Your task to perform on an android device: star an email in the gmail app Image 0: 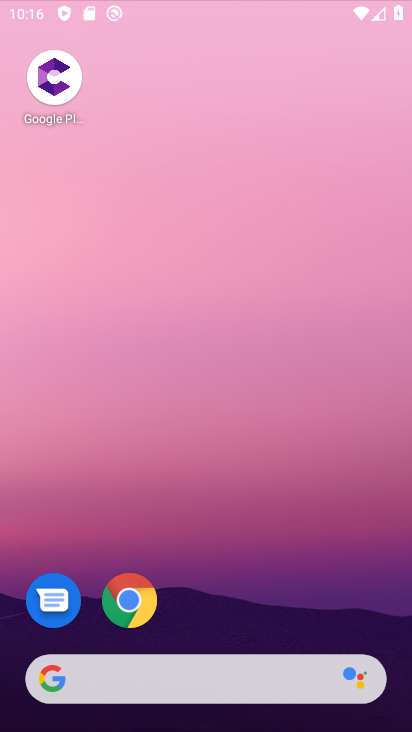
Step 0: drag from (390, 609) to (384, 296)
Your task to perform on an android device: star an email in the gmail app Image 1: 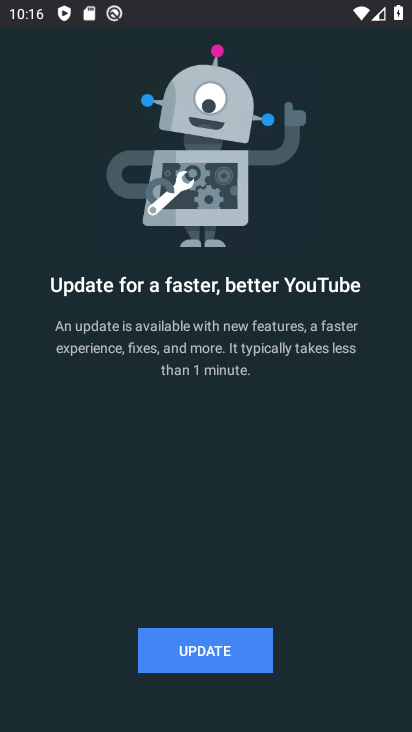
Step 1: press home button
Your task to perform on an android device: star an email in the gmail app Image 2: 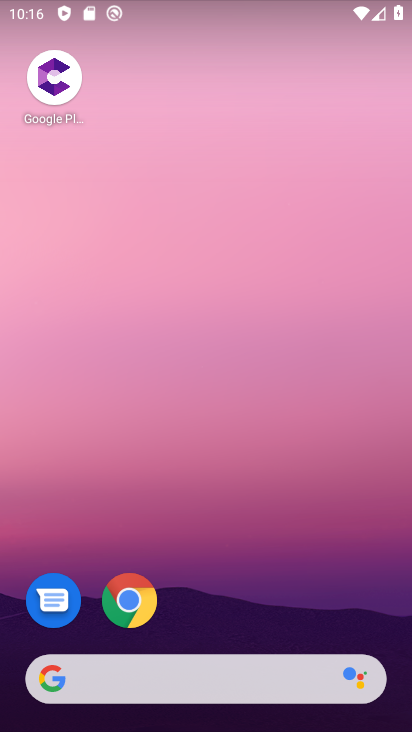
Step 2: drag from (369, 592) to (361, 217)
Your task to perform on an android device: star an email in the gmail app Image 3: 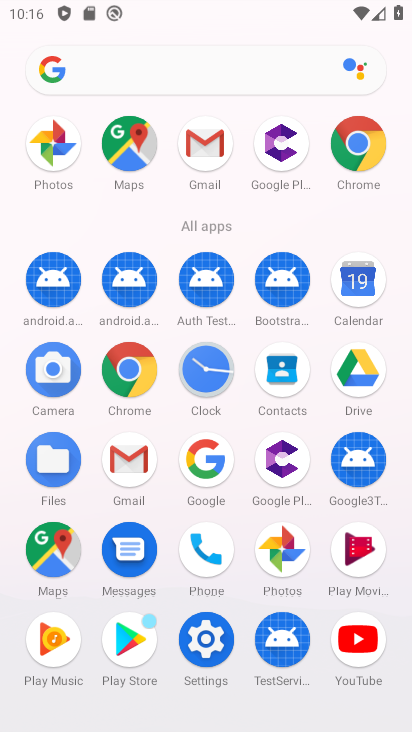
Step 3: click (132, 464)
Your task to perform on an android device: star an email in the gmail app Image 4: 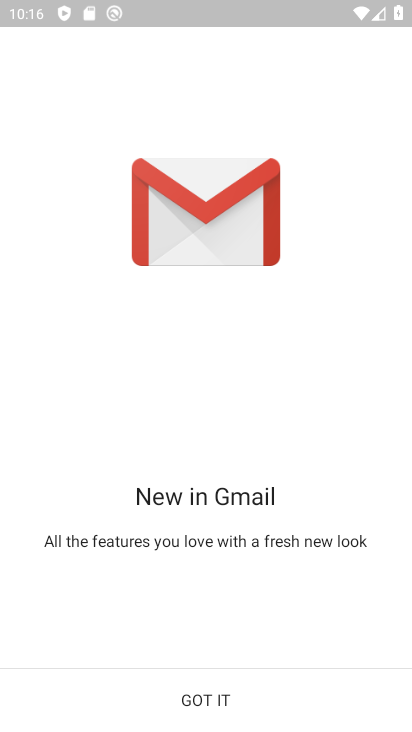
Step 4: click (321, 699)
Your task to perform on an android device: star an email in the gmail app Image 5: 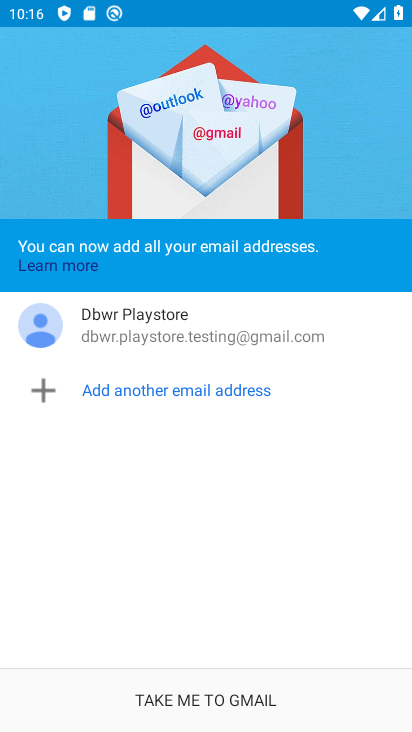
Step 5: click (281, 712)
Your task to perform on an android device: star an email in the gmail app Image 6: 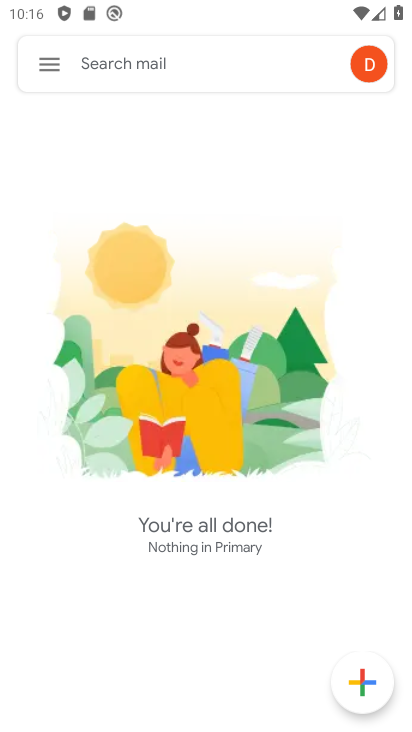
Step 6: click (52, 65)
Your task to perform on an android device: star an email in the gmail app Image 7: 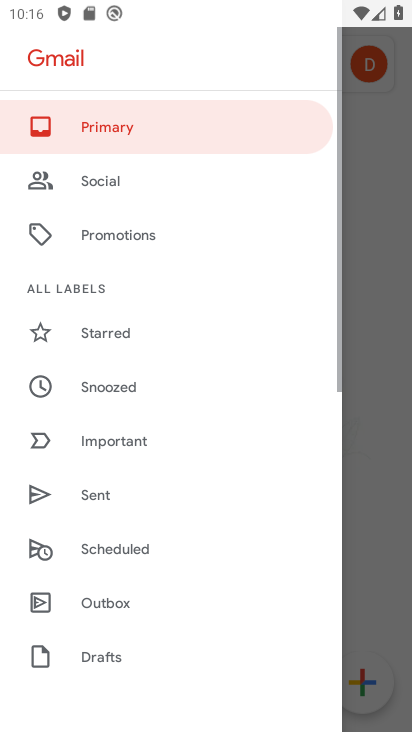
Step 7: drag from (229, 550) to (231, 398)
Your task to perform on an android device: star an email in the gmail app Image 8: 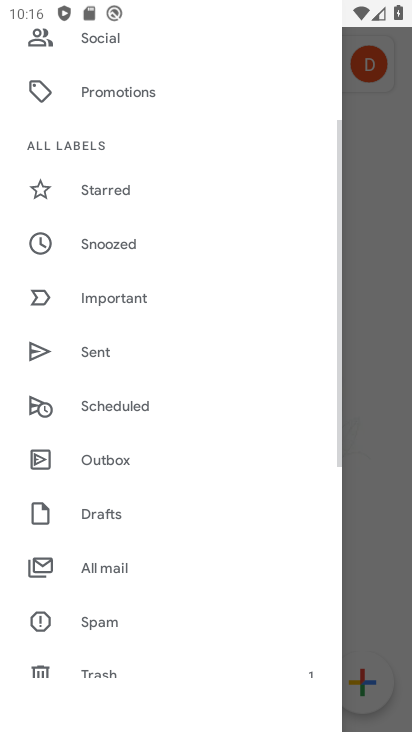
Step 8: drag from (243, 592) to (249, 455)
Your task to perform on an android device: star an email in the gmail app Image 9: 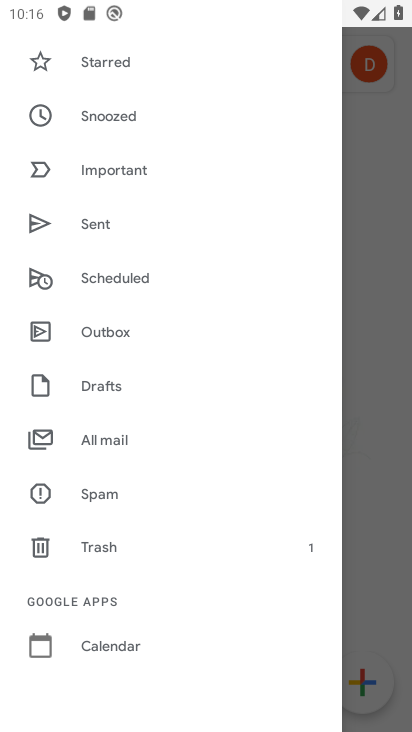
Step 9: drag from (242, 597) to (238, 472)
Your task to perform on an android device: star an email in the gmail app Image 10: 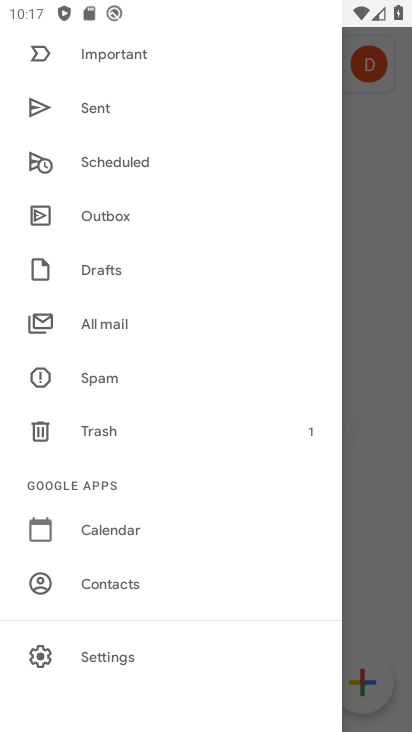
Step 10: drag from (242, 580) to (245, 416)
Your task to perform on an android device: star an email in the gmail app Image 11: 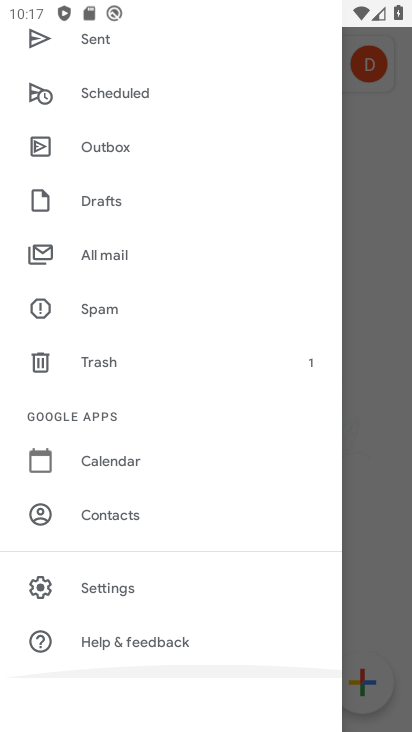
Step 11: drag from (245, 305) to (261, 517)
Your task to perform on an android device: star an email in the gmail app Image 12: 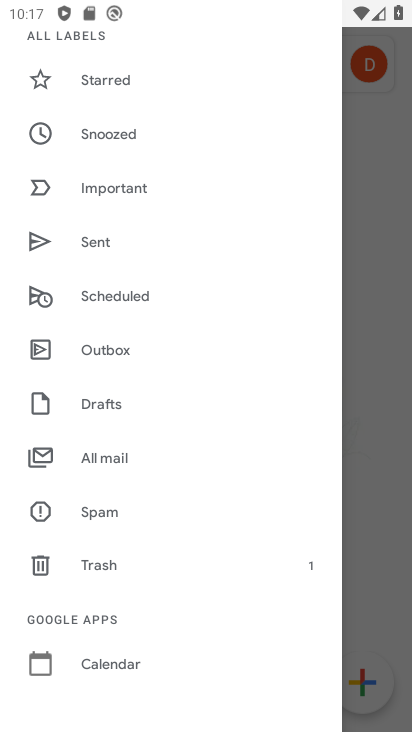
Step 12: drag from (241, 237) to (254, 397)
Your task to perform on an android device: star an email in the gmail app Image 13: 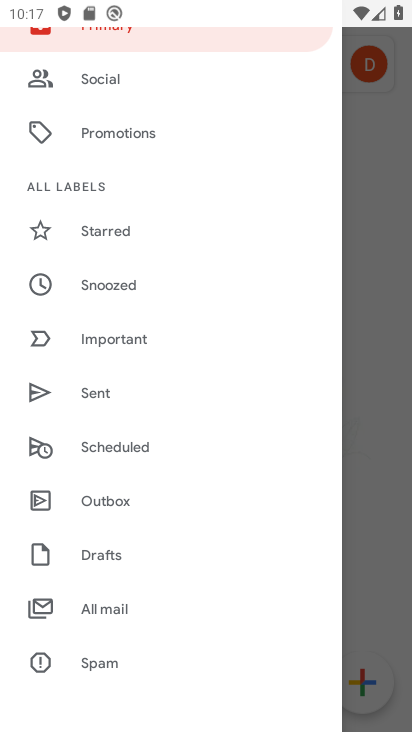
Step 13: drag from (231, 247) to (241, 432)
Your task to perform on an android device: star an email in the gmail app Image 14: 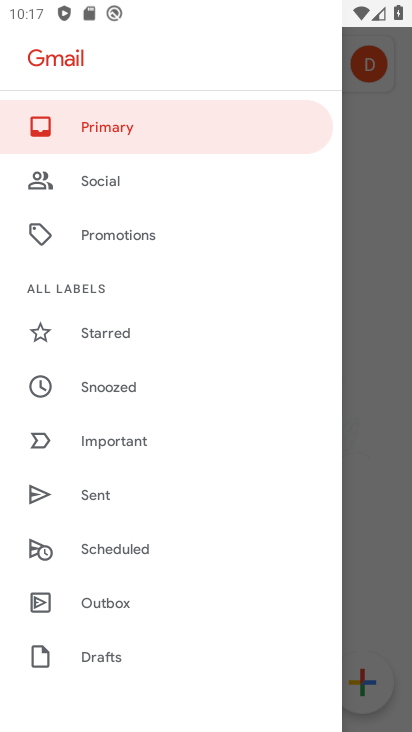
Step 14: click (145, 129)
Your task to perform on an android device: star an email in the gmail app Image 15: 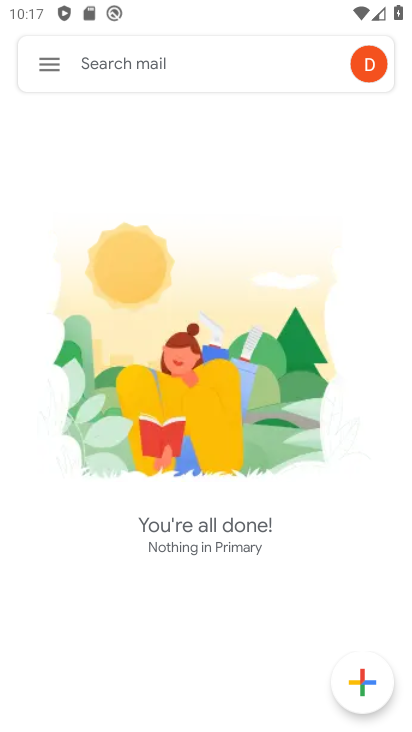
Step 15: task complete